Your task to perform on an android device: Open the map Image 0: 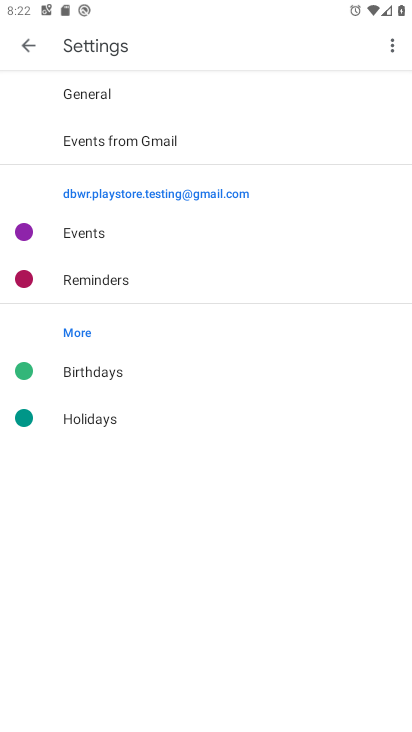
Step 0: press home button
Your task to perform on an android device: Open the map Image 1: 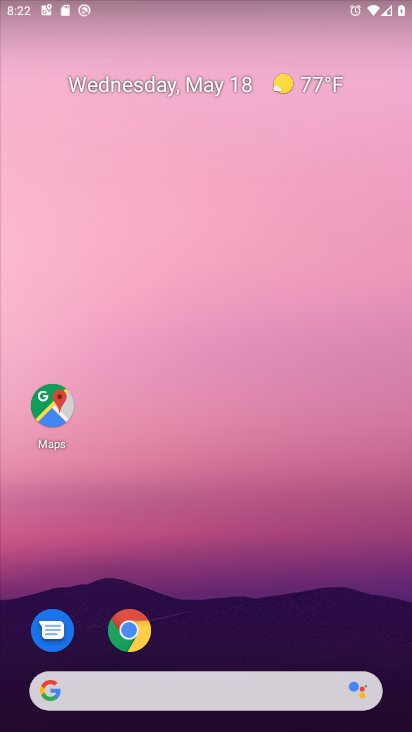
Step 1: click (55, 409)
Your task to perform on an android device: Open the map Image 2: 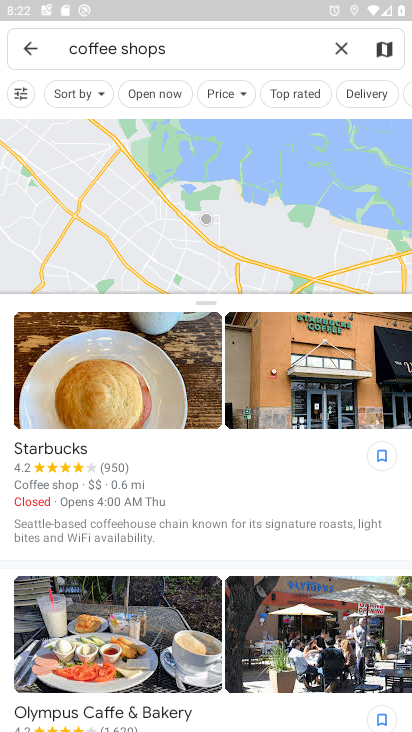
Step 2: click (349, 46)
Your task to perform on an android device: Open the map Image 3: 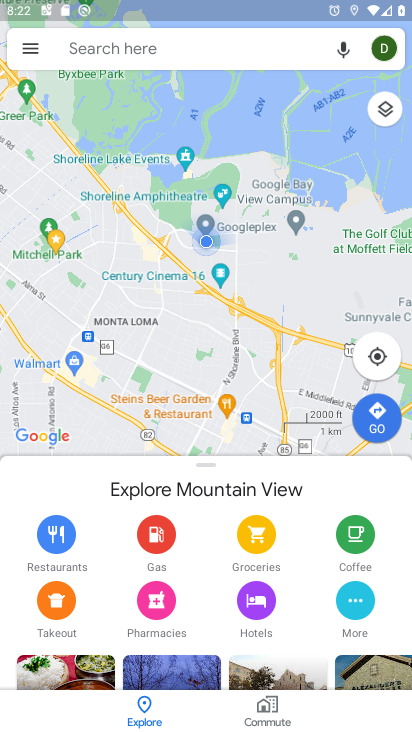
Step 3: task complete